Your task to perform on an android device: Open the Play Movies app and select the watchlist tab. Image 0: 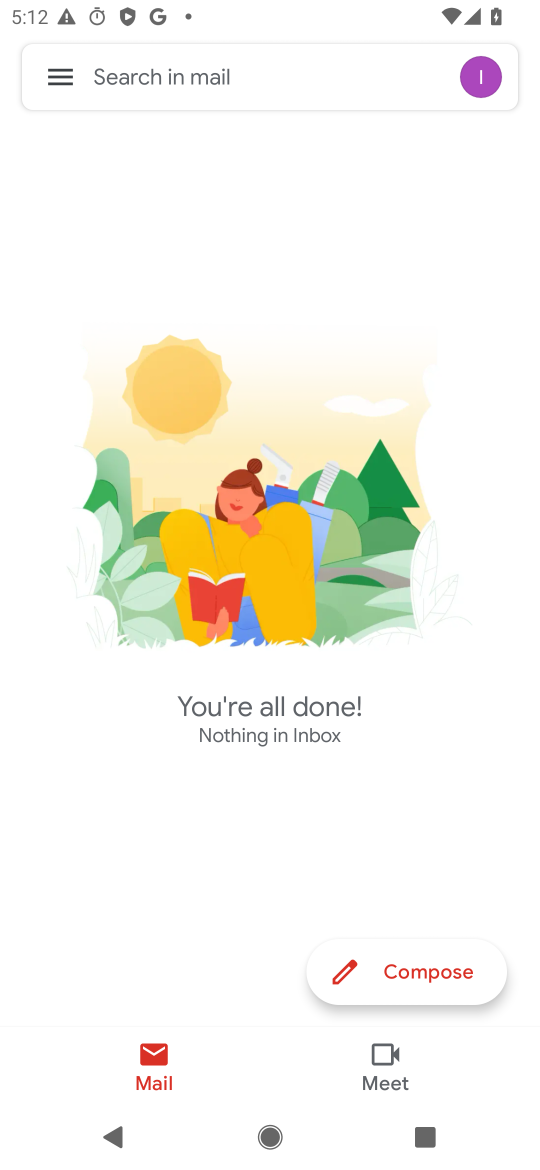
Step 0: press home button
Your task to perform on an android device: Open the Play Movies app and select the watchlist tab. Image 1: 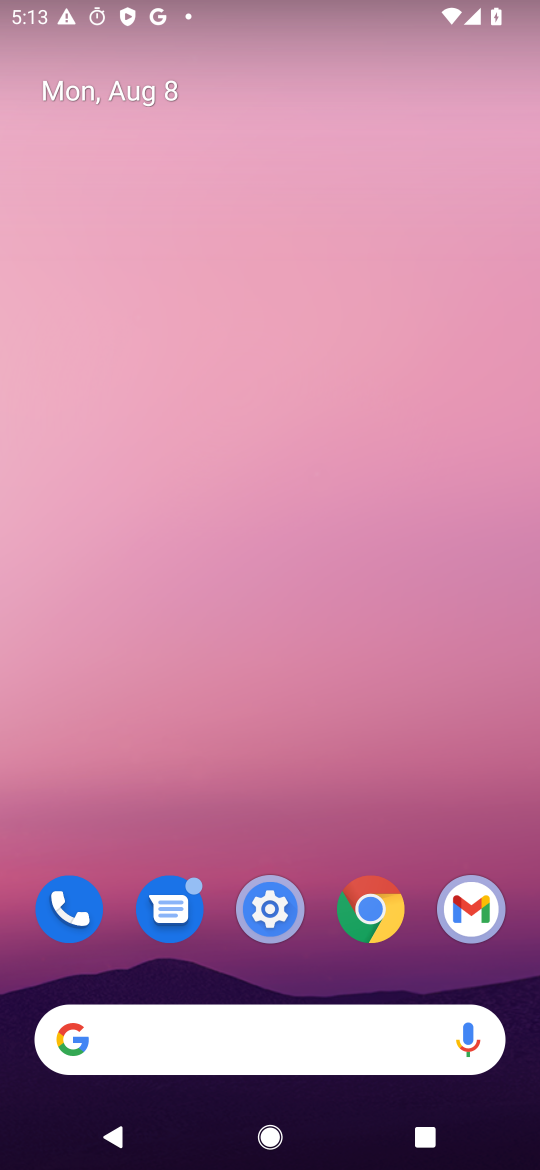
Step 1: task complete